Your task to perform on an android device: turn on notifications settings in the gmail app Image 0: 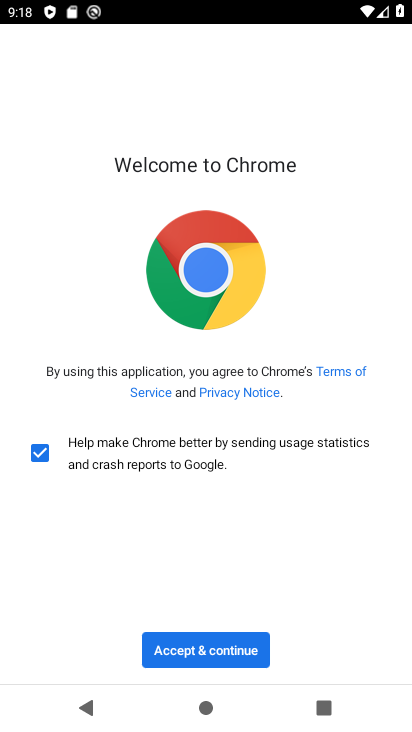
Step 0: press home button
Your task to perform on an android device: turn on notifications settings in the gmail app Image 1: 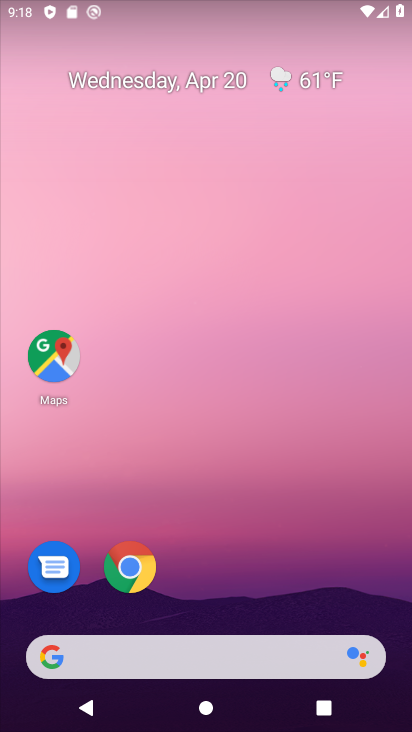
Step 1: drag from (200, 181) to (200, 132)
Your task to perform on an android device: turn on notifications settings in the gmail app Image 2: 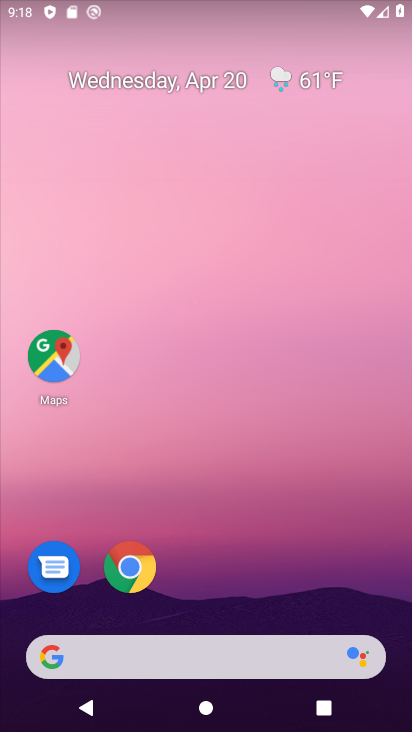
Step 2: drag from (210, 609) to (210, 150)
Your task to perform on an android device: turn on notifications settings in the gmail app Image 3: 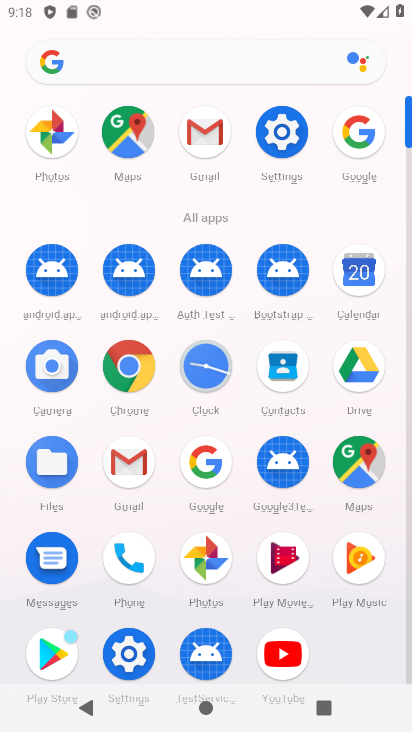
Step 3: click (196, 158)
Your task to perform on an android device: turn on notifications settings in the gmail app Image 4: 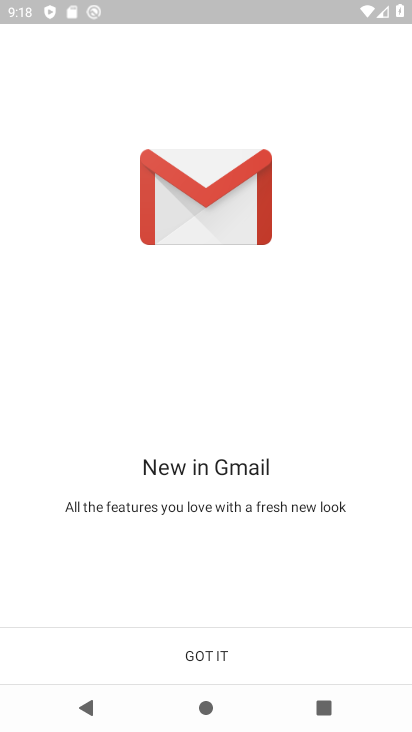
Step 4: click (210, 656)
Your task to perform on an android device: turn on notifications settings in the gmail app Image 5: 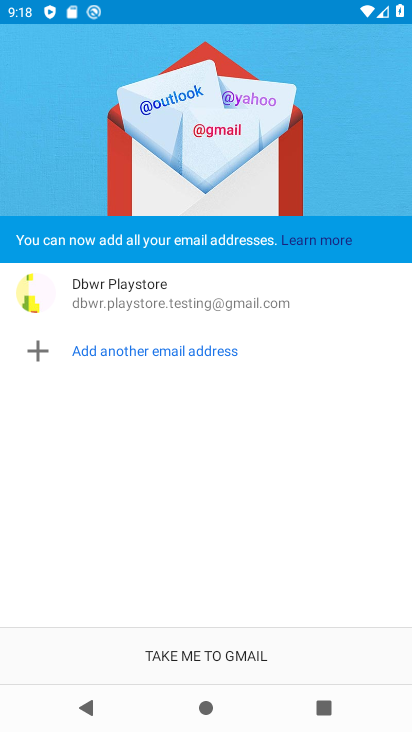
Step 5: click (193, 664)
Your task to perform on an android device: turn on notifications settings in the gmail app Image 6: 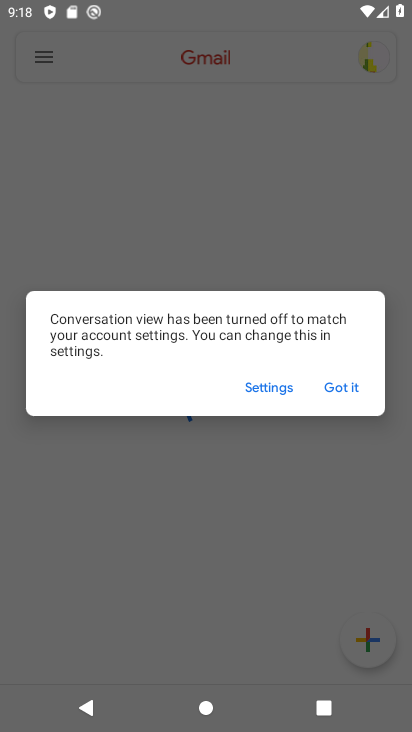
Step 6: click (336, 385)
Your task to perform on an android device: turn on notifications settings in the gmail app Image 7: 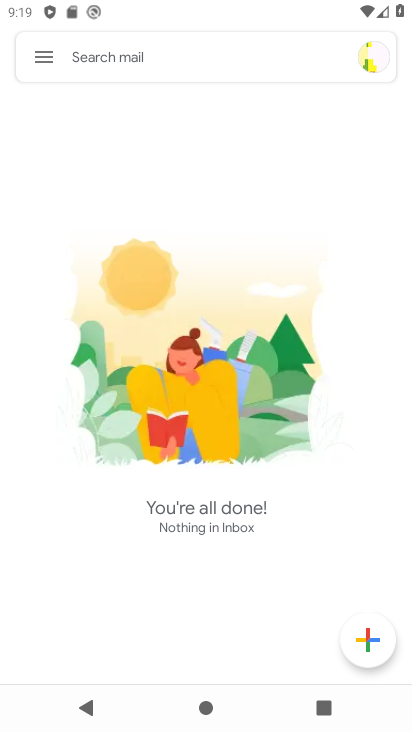
Step 7: click (42, 48)
Your task to perform on an android device: turn on notifications settings in the gmail app Image 8: 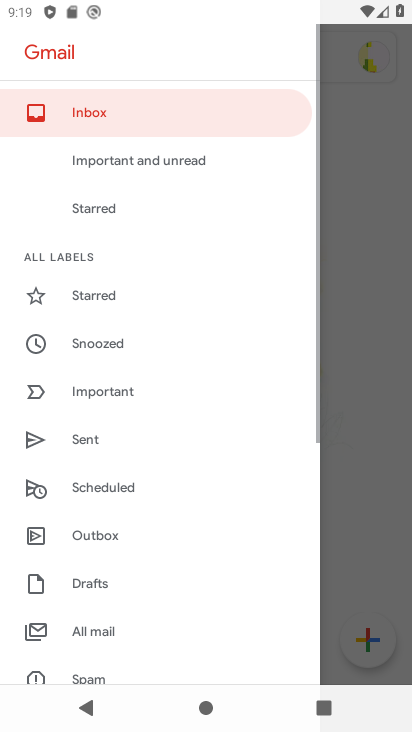
Step 8: drag from (157, 402) to (164, 308)
Your task to perform on an android device: turn on notifications settings in the gmail app Image 9: 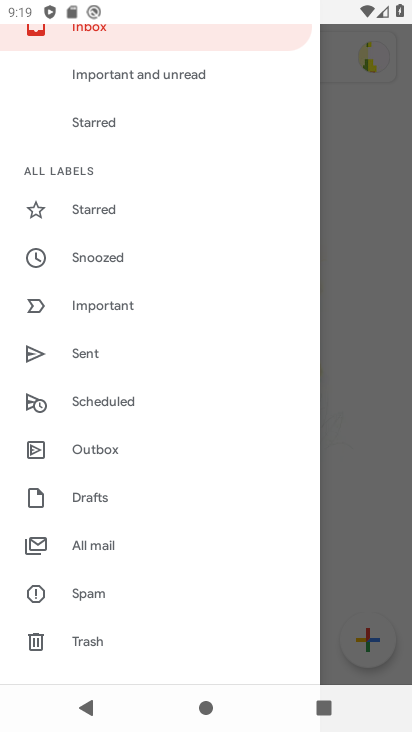
Step 9: drag from (124, 617) to (165, 356)
Your task to perform on an android device: turn on notifications settings in the gmail app Image 10: 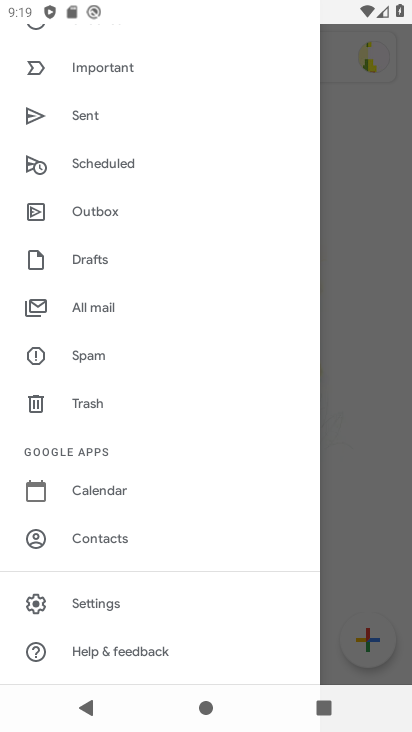
Step 10: click (84, 607)
Your task to perform on an android device: turn on notifications settings in the gmail app Image 11: 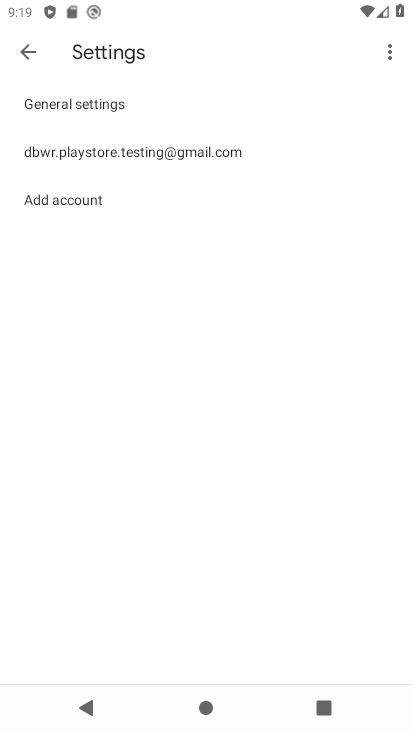
Step 11: click (191, 136)
Your task to perform on an android device: turn on notifications settings in the gmail app Image 12: 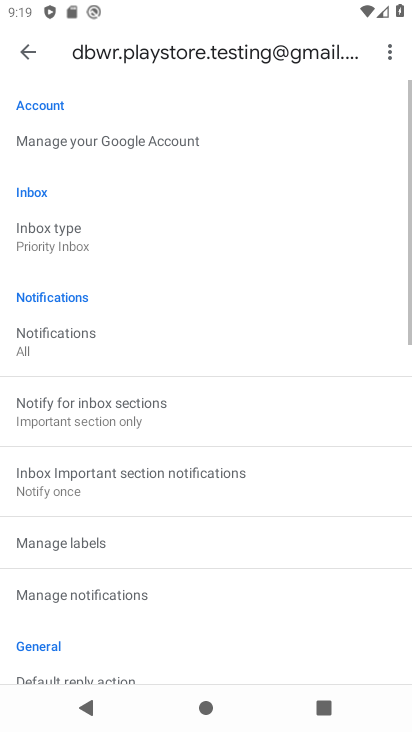
Step 12: drag from (184, 577) to (217, 341)
Your task to perform on an android device: turn on notifications settings in the gmail app Image 13: 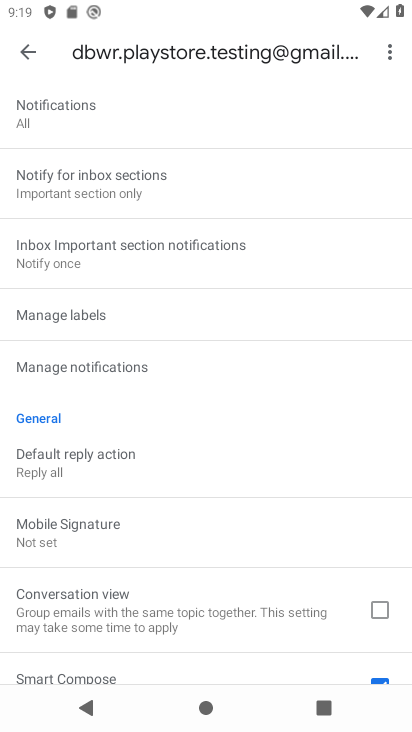
Step 13: click (163, 358)
Your task to perform on an android device: turn on notifications settings in the gmail app Image 14: 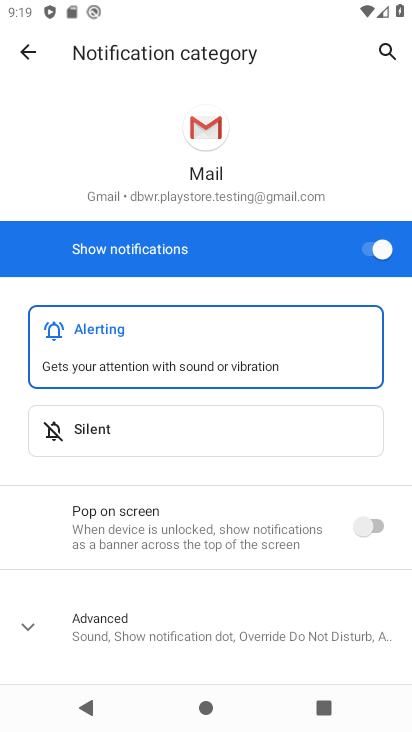
Step 14: task complete